Your task to perform on an android device: open chrome and create a bookmark for the current page Image 0: 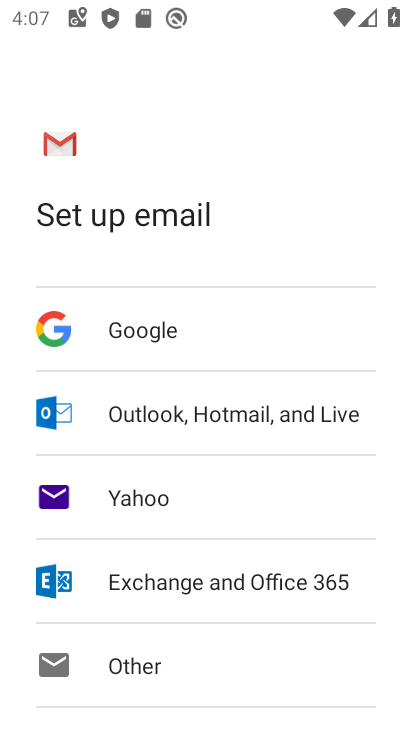
Step 0: press back button
Your task to perform on an android device: open chrome and create a bookmark for the current page Image 1: 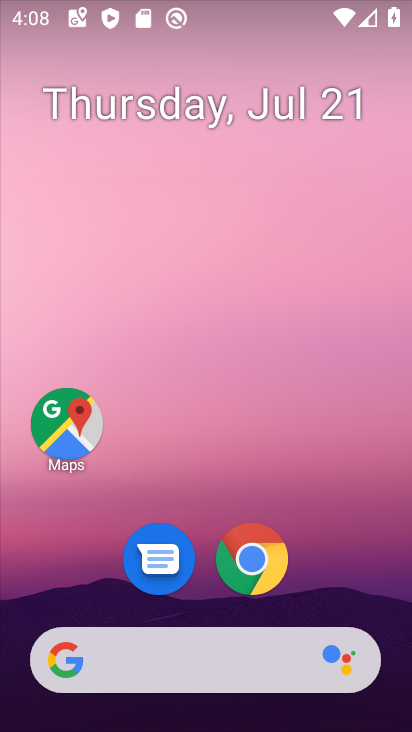
Step 1: click (249, 576)
Your task to perform on an android device: open chrome and create a bookmark for the current page Image 2: 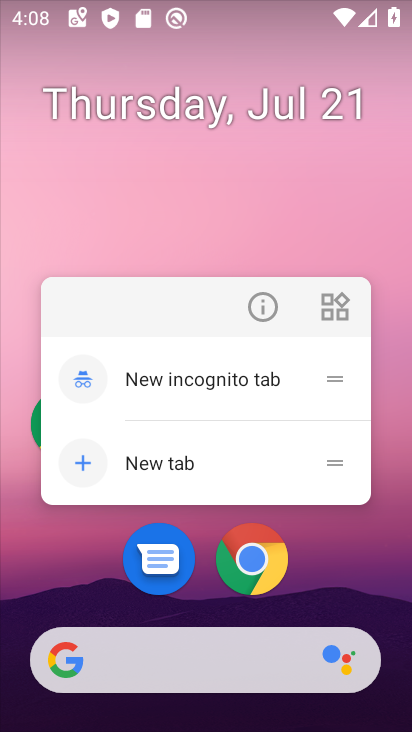
Step 2: click (255, 558)
Your task to perform on an android device: open chrome and create a bookmark for the current page Image 3: 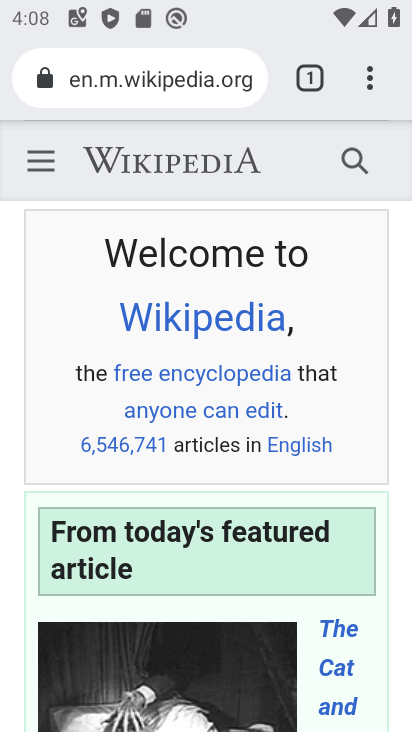
Step 3: task complete